Your task to perform on an android device: change timer sound Image 0: 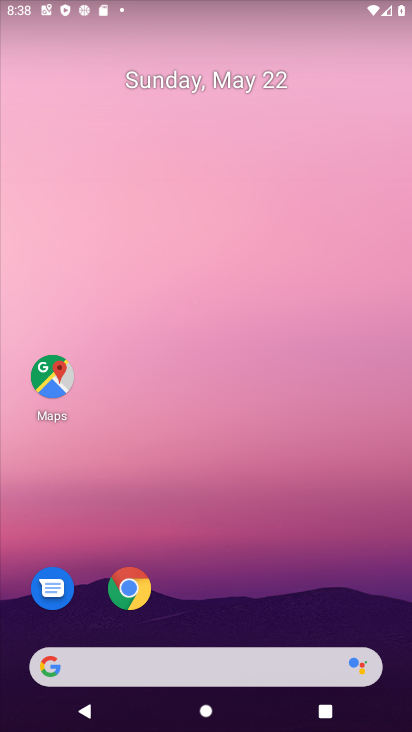
Step 0: drag from (228, 523) to (238, 0)
Your task to perform on an android device: change timer sound Image 1: 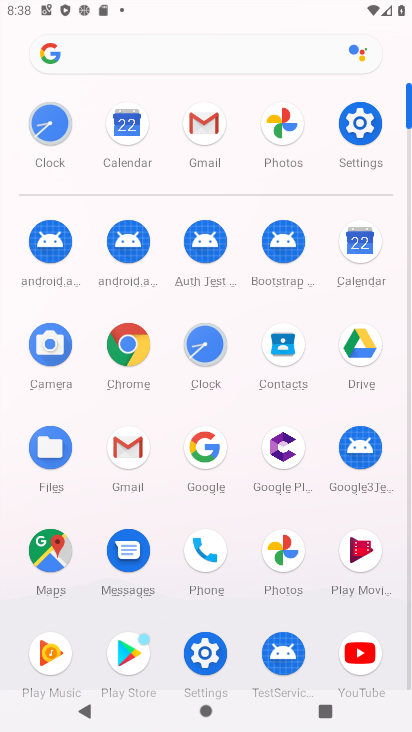
Step 1: click (196, 347)
Your task to perform on an android device: change timer sound Image 2: 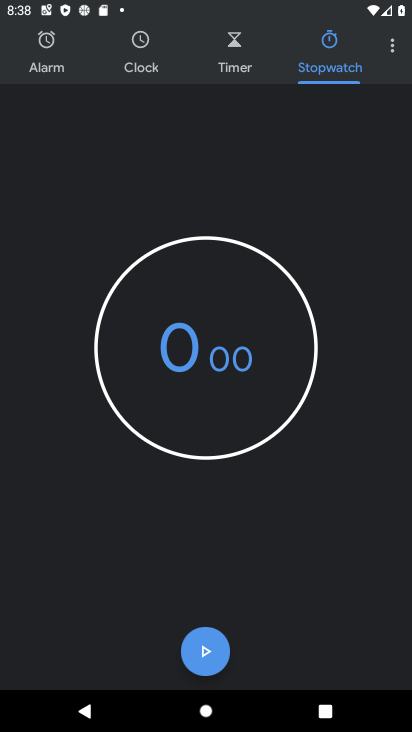
Step 2: click (229, 48)
Your task to perform on an android device: change timer sound Image 3: 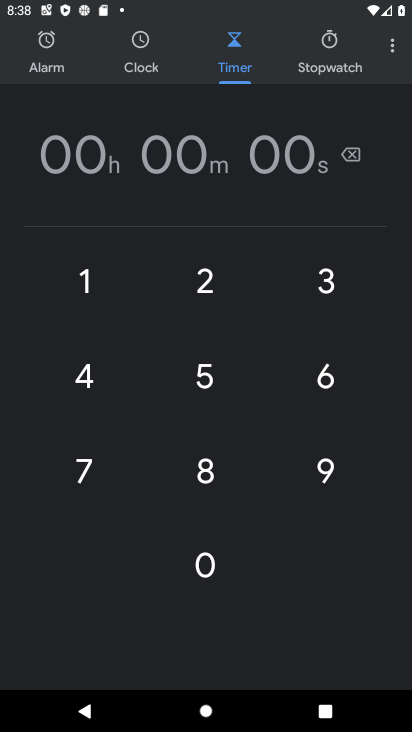
Step 3: click (90, 276)
Your task to perform on an android device: change timer sound Image 4: 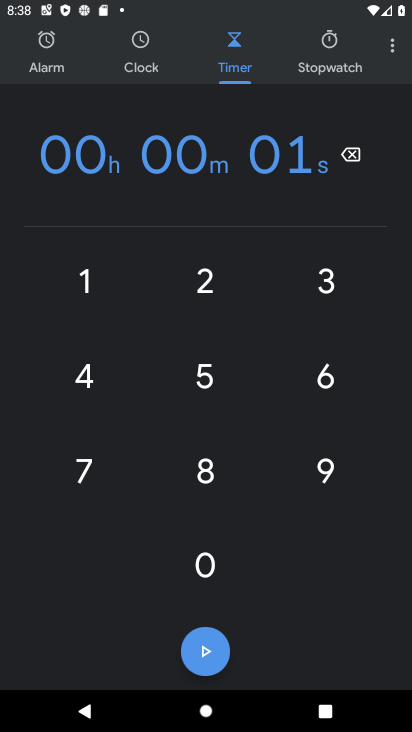
Step 4: click (90, 276)
Your task to perform on an android device: change timer sound Image 5: 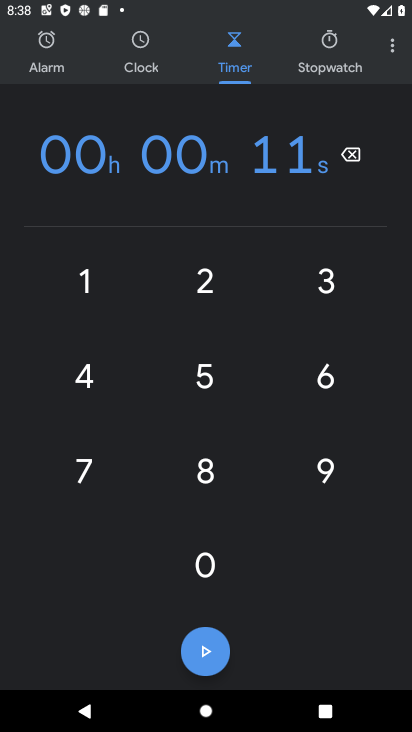
Step 5: click (90, 286)
Your task to perform on an android device: change timer sound Image 6: 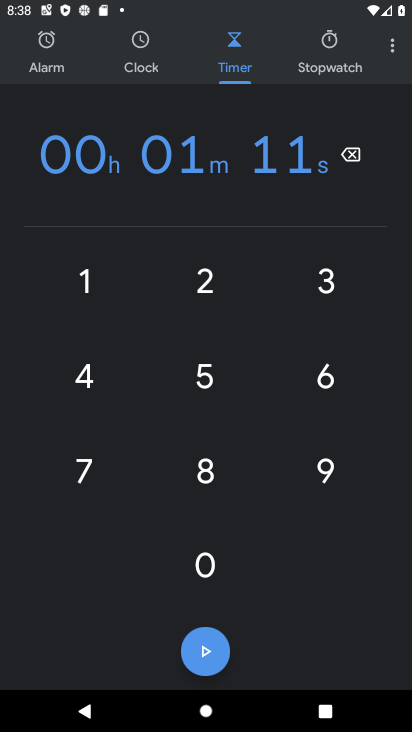
Step 6: click (90, 286)
Your task to perform on an android device: change timer sound Image 7: 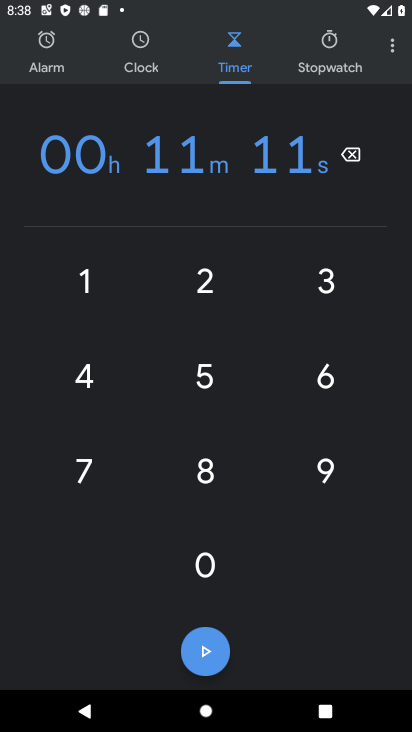
Step 7: click (88, 288)
Your task to perform on an android device: change timer sound Image 8: 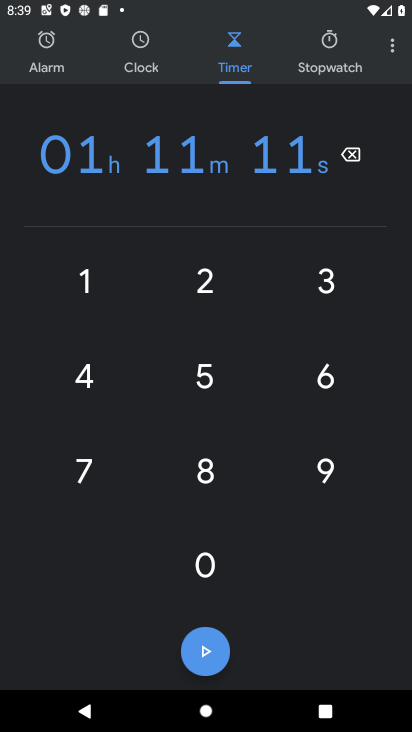
Step 8: click (88, 288)
Your task to perform on an android device: change timer sound Image 9: 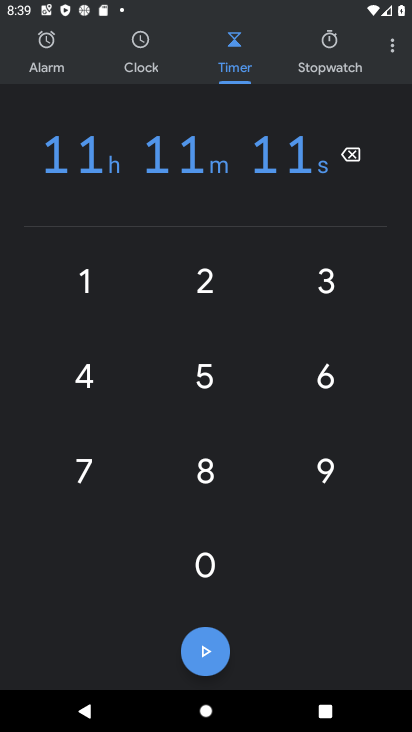
Step 9: task complete